Your task to perform on an android device: uninstall "Life360: Find Family & Friends" Image 0: 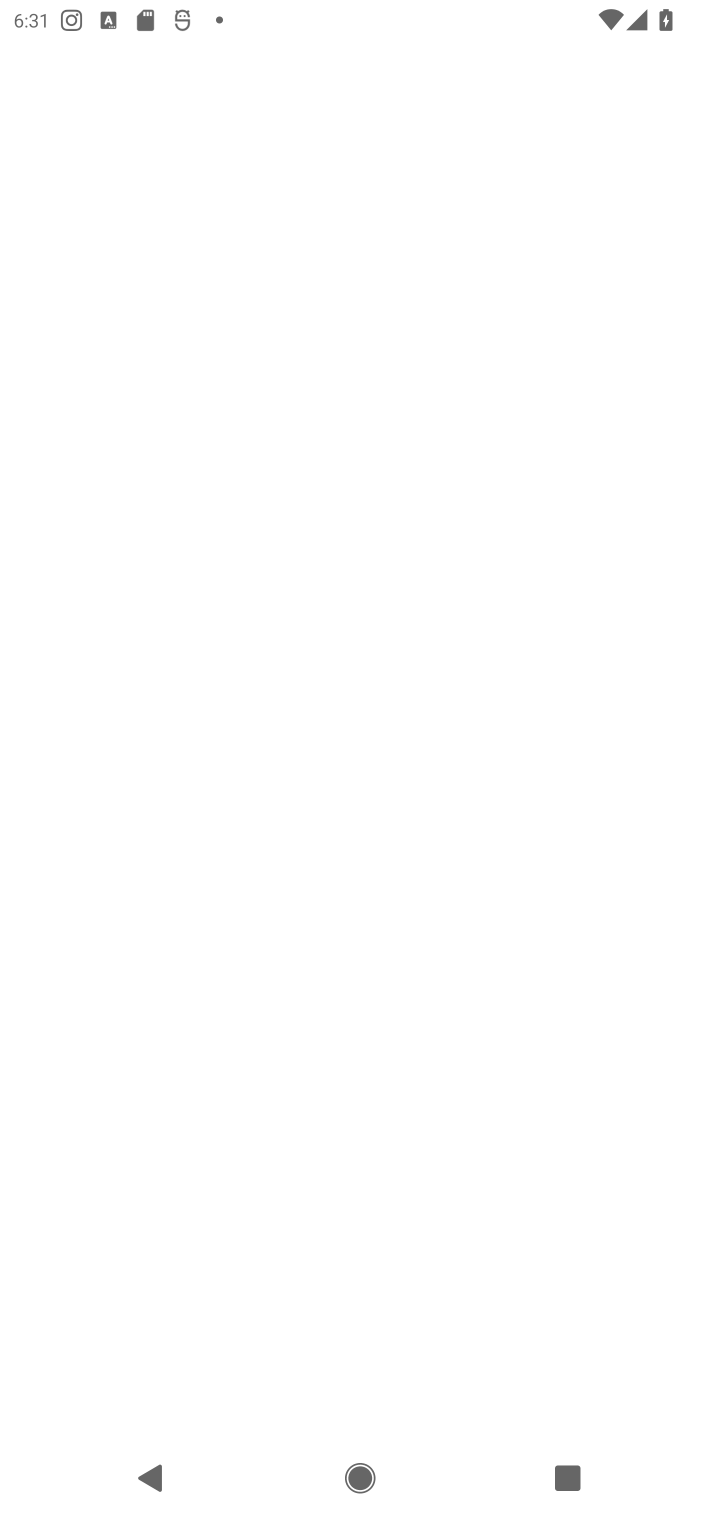
Step 0: press home button
Your task to perform on an android device: uninstall "Life360: Find Family & Friends" Image 1: 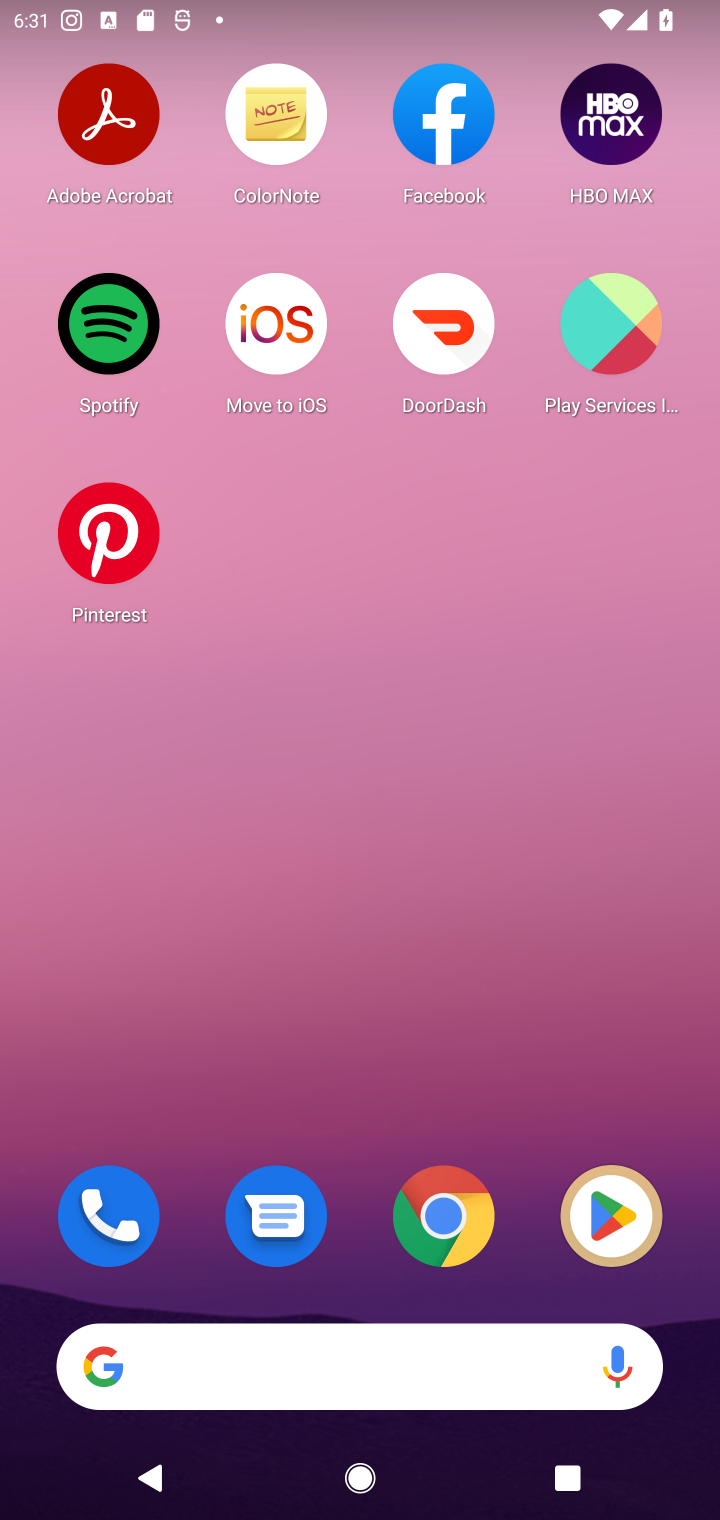
Step 1: click (570, 1176)
Your task to perform on an android device: uninstall "Life360: Find Family & Friends" Image 2: 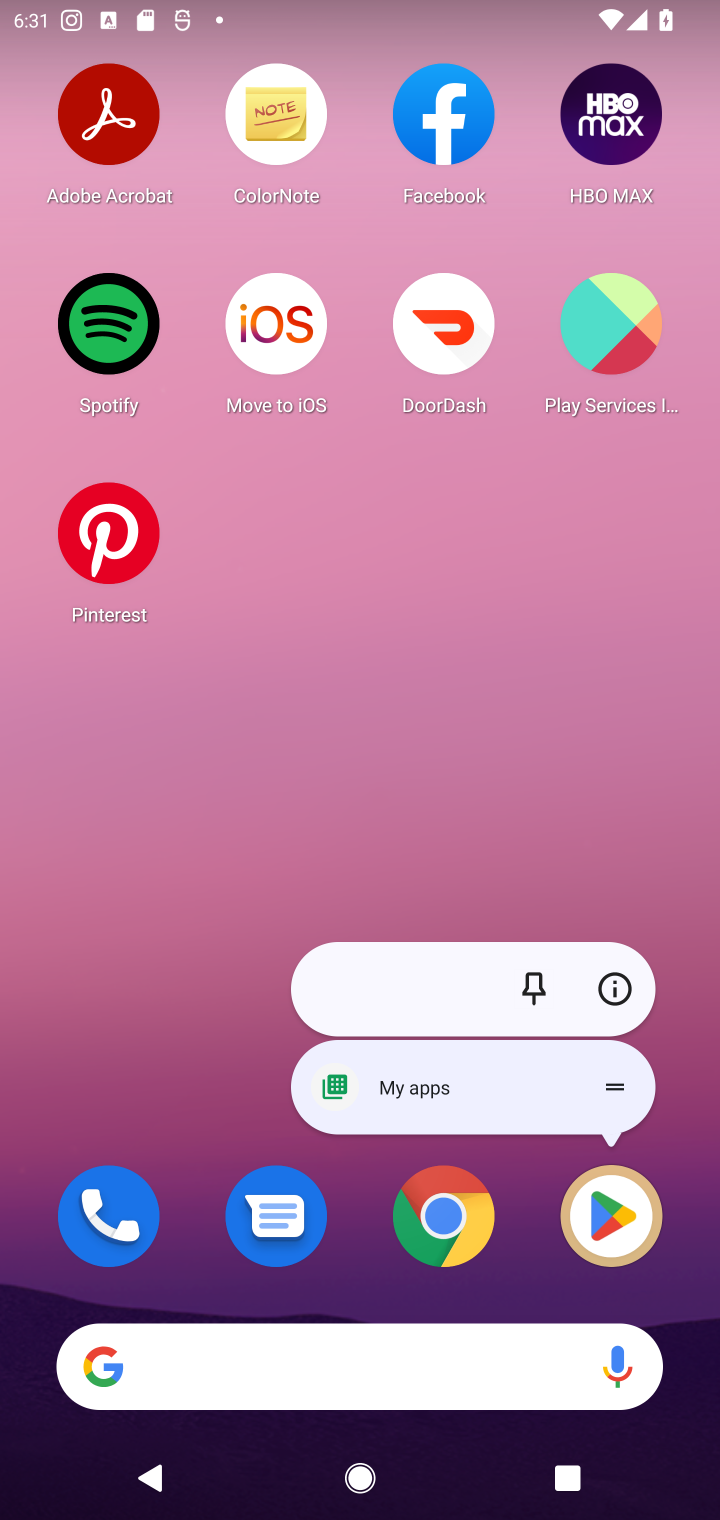
Step 2: click (610, 1226)
Your task to perform on an android device: uninstall "Life360: Find Family & Friends" Image 3: 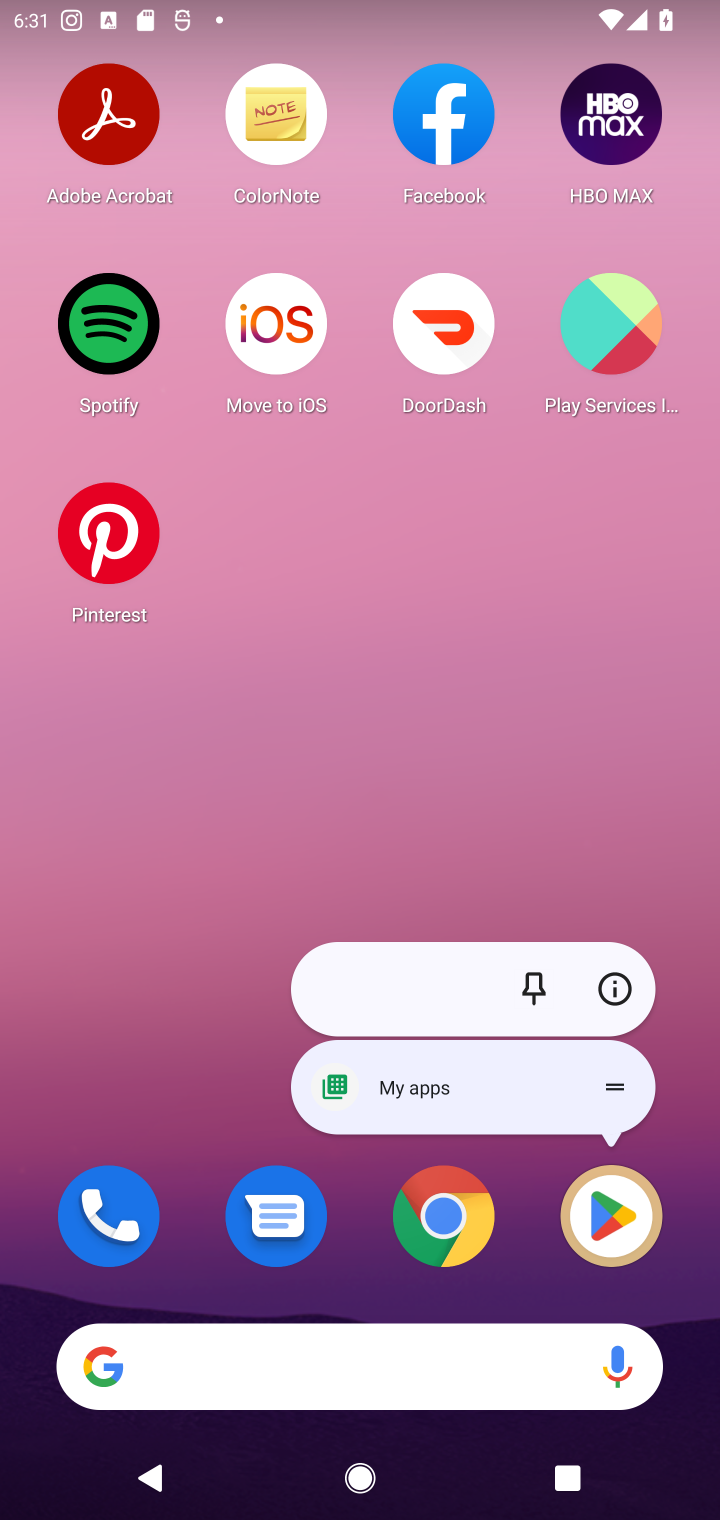
Step 3: click (577, 1231)
Your task to perform on an android device: uninstall "Life360: Find Family & Friends" Image 4: 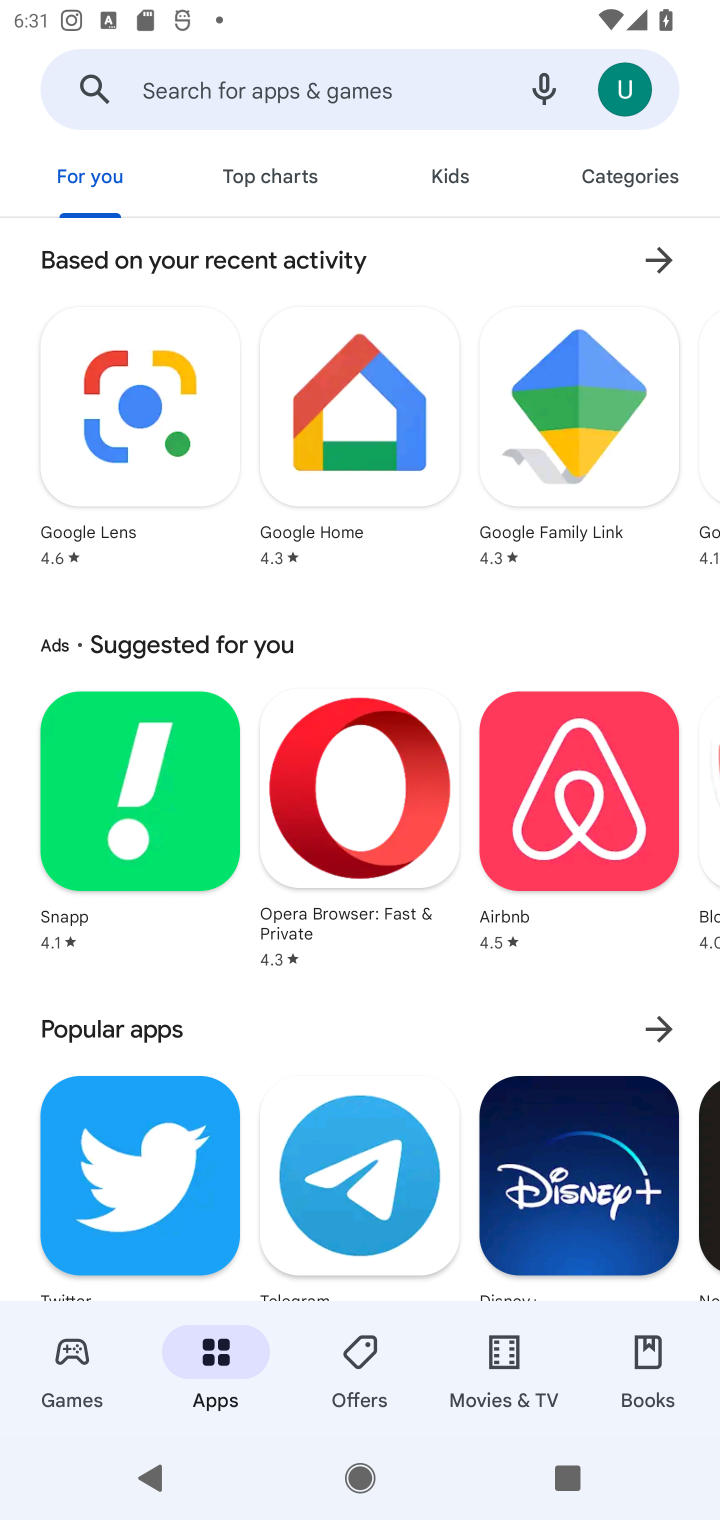
Step 4: click (455, 89)
Your task to perform on an android device: uninstall "Life360: Find Family & Friends" Image 5: 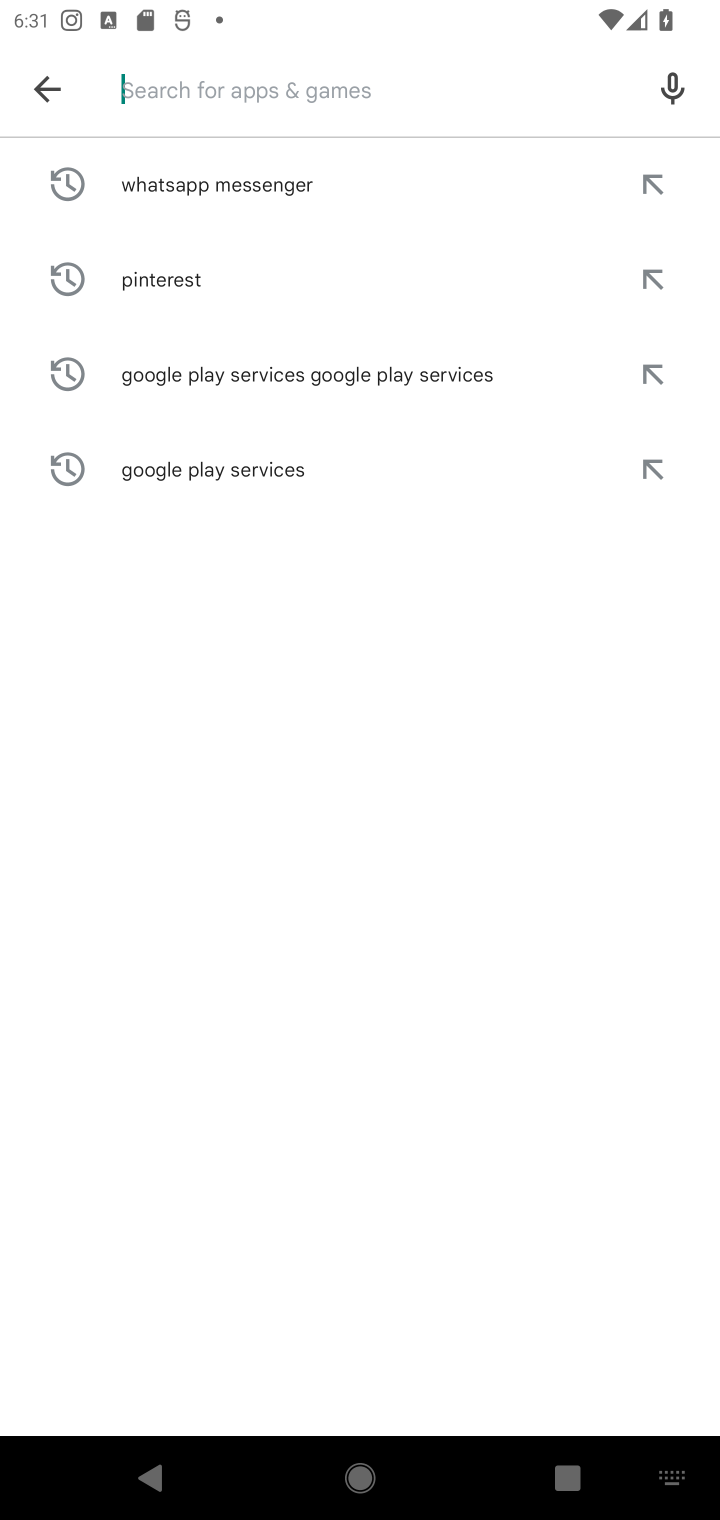
Step 5: type "Life360: Find Family & Friends"
Your task to perform on an android device: uninstall "Life360: Find Family & Friends" Image 6: 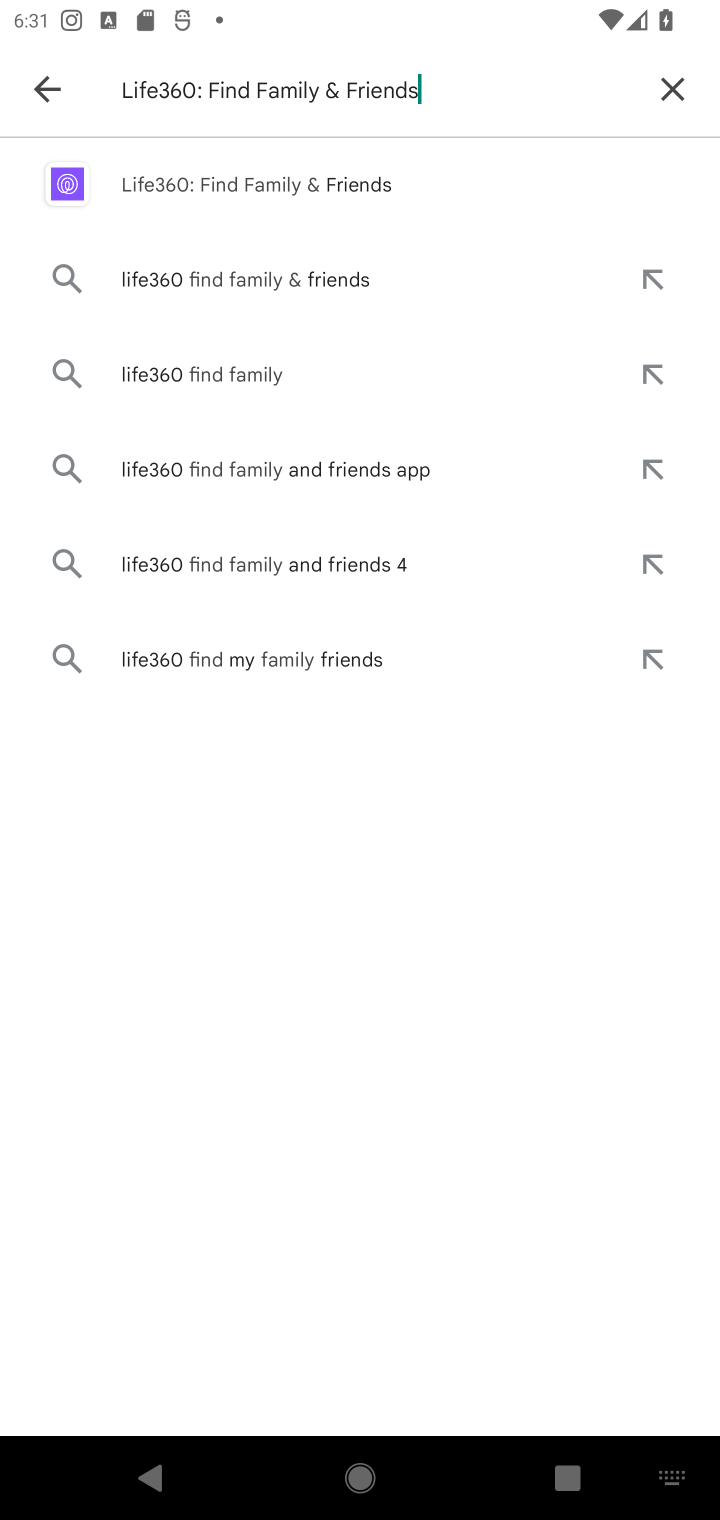
Step 6: type ""
Your task to perform on an android device: uninstall "Life360: Find Family & Friends" Image 7: 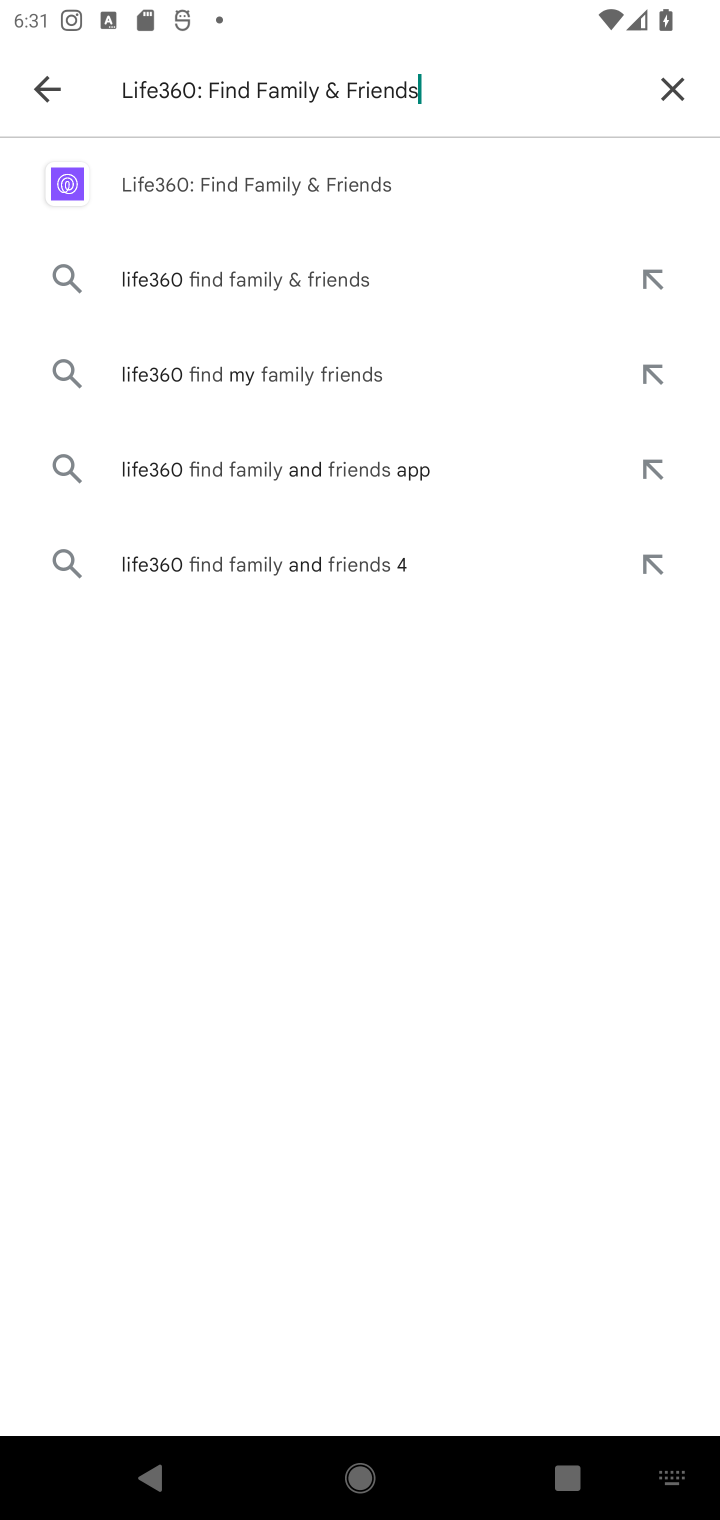
Step 7: click (284, 198)
Your task to perform on an android device: uninstall "Life360: Find Family & Friends" Image 8: 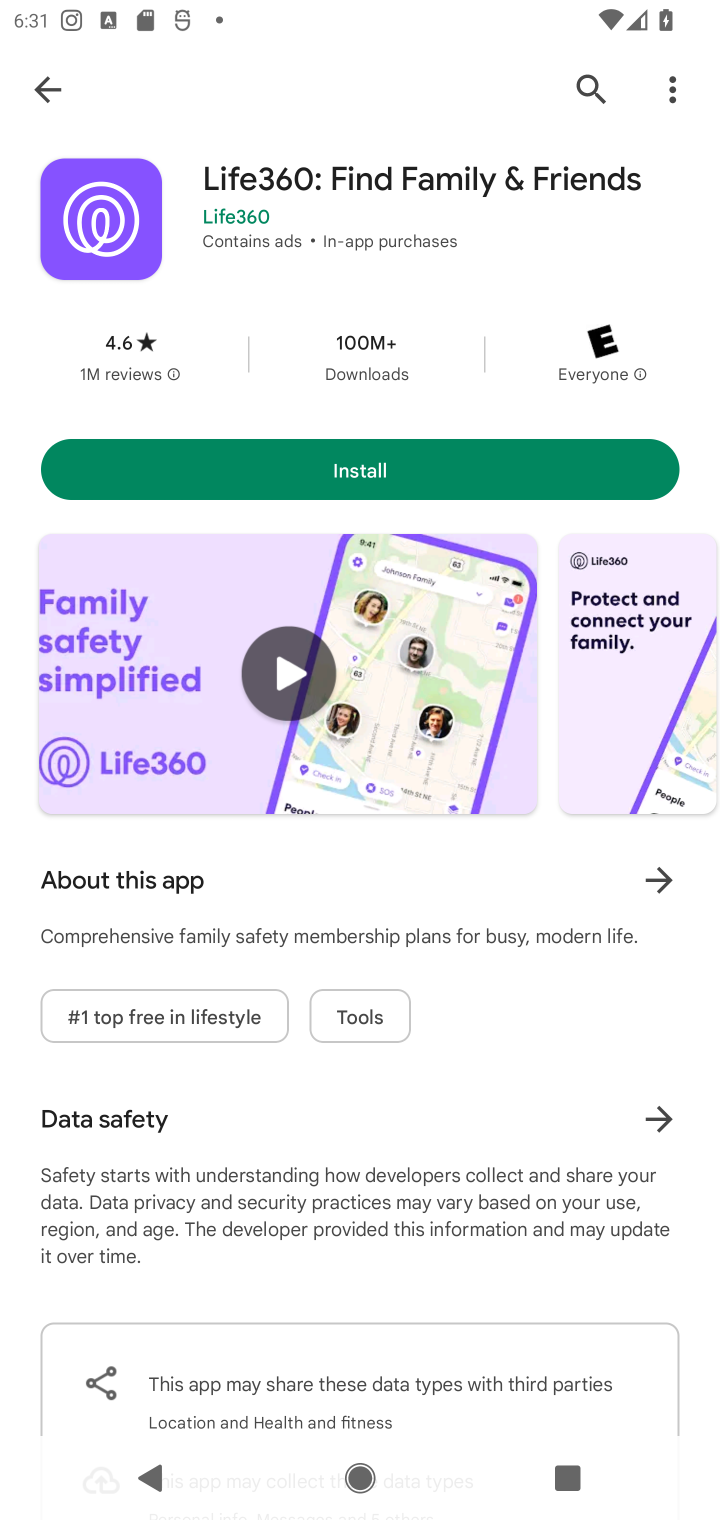
Step 8: task complete